Your task to perform on an android device: Open sound settings Image 0: 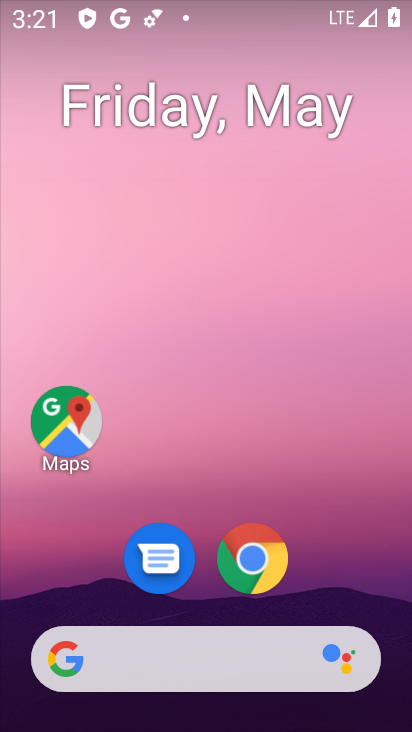
Step 0: press home button
Your task to perform on an android device: Open sound settings Image 1: 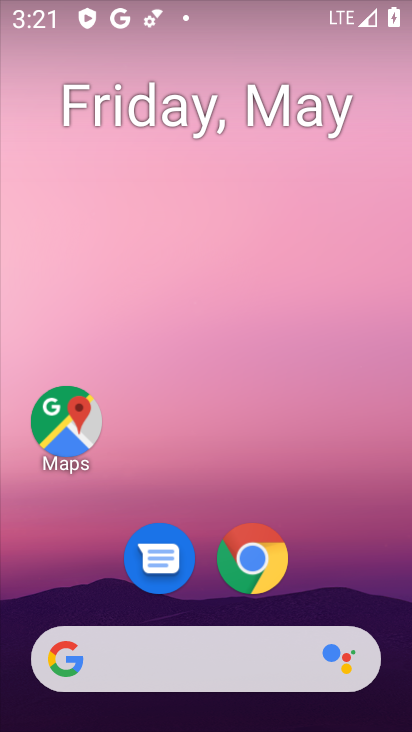
Step 1: drag from (232, 654) to (318, 187)
Your task to perform on an android device: Open sound settings Image 2: 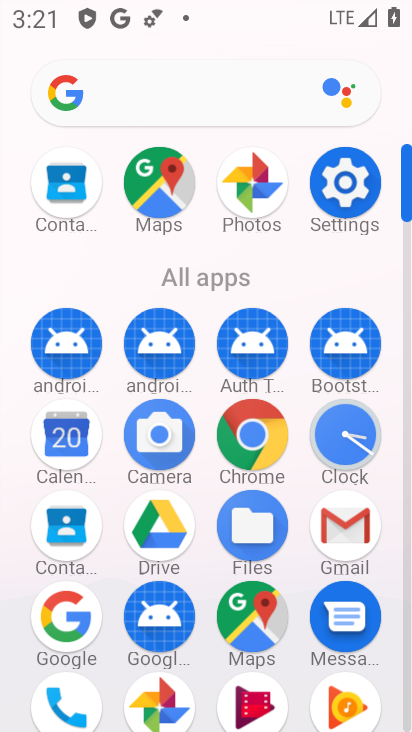
Step 2: click (355, 190)
Your task to perform on an android device: Open sound settings Image 3: 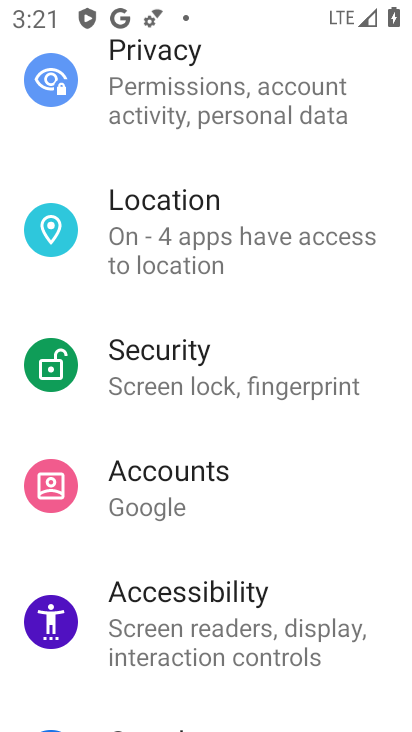
Step 3: drag from (253, 572) to (311, 264)
Your task to perform on an android device: Open sound settings Image 4: 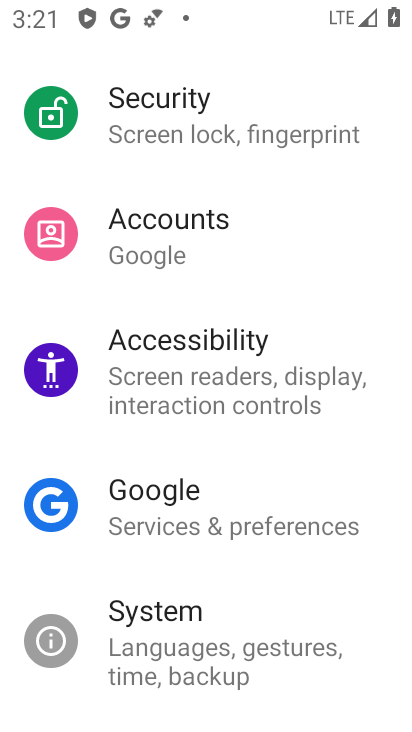
Step 4: drag from (306, 195) to (302, 611)
Your task to perform on an android device: Open sound settings Image 5: 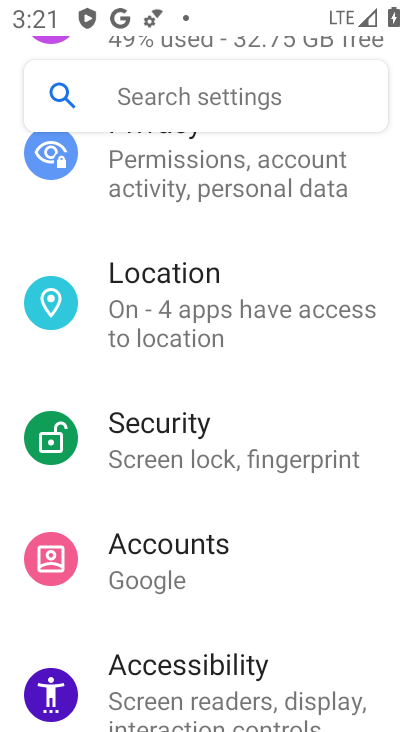
Step 5: drag from (320, 254) to (292, 665)
Your task to perform on an android device: Open sound settings Image 6: 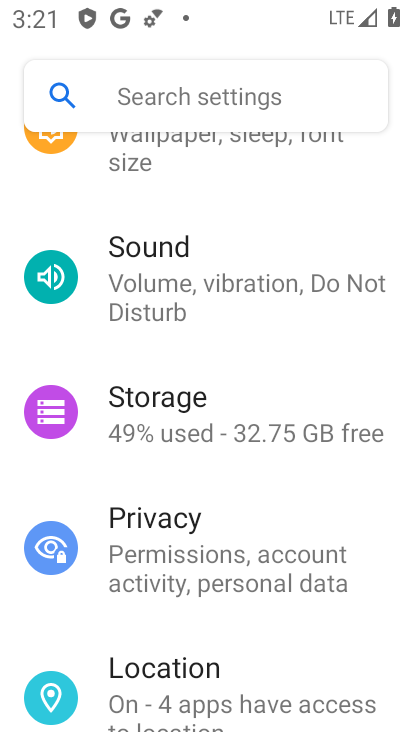
Step 6: click (170, 252)
Your task to perform on an android device: Open sound settings Image 7: 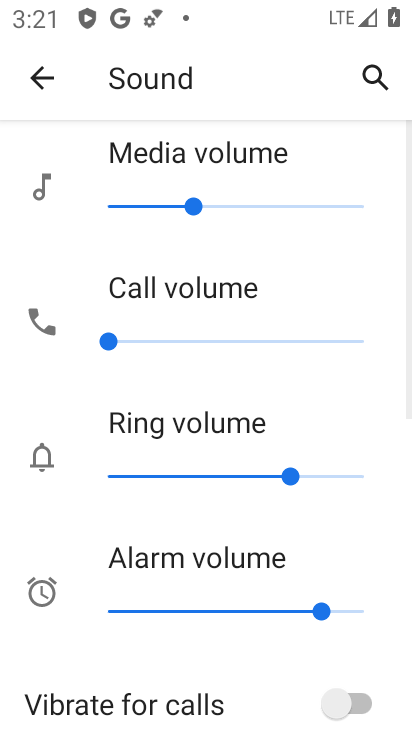
Step 7: task complete